Your task to perform on an android device: change notifications settings Image 0: 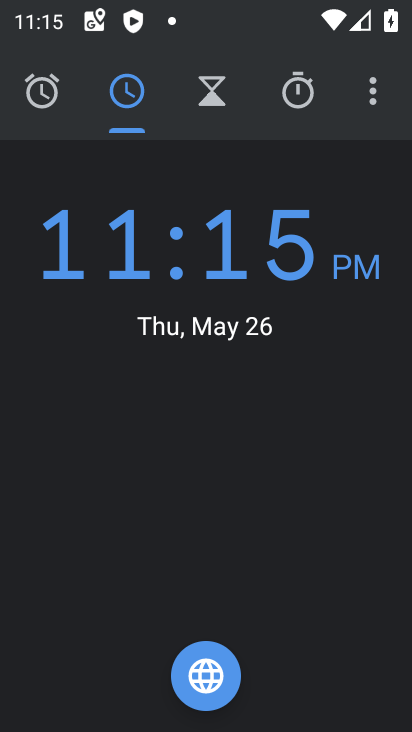
Step 0: press back button
Your task to perform on an android device: change notifications settings Image 1: 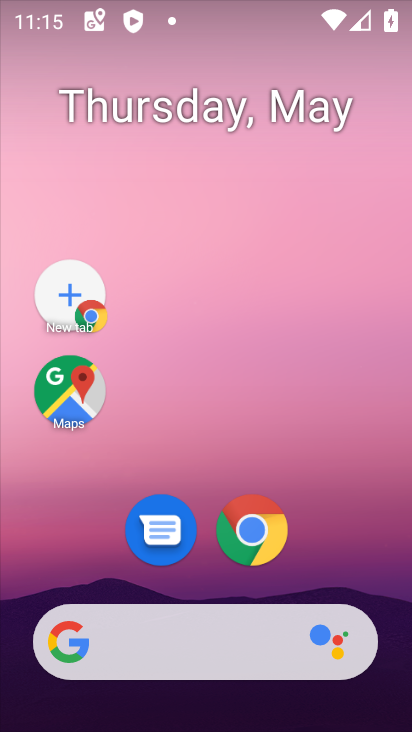
Step 1: drag from (334, 407) to (258, 107)
Your task to perform on an android device: change notifications settings Image 2: 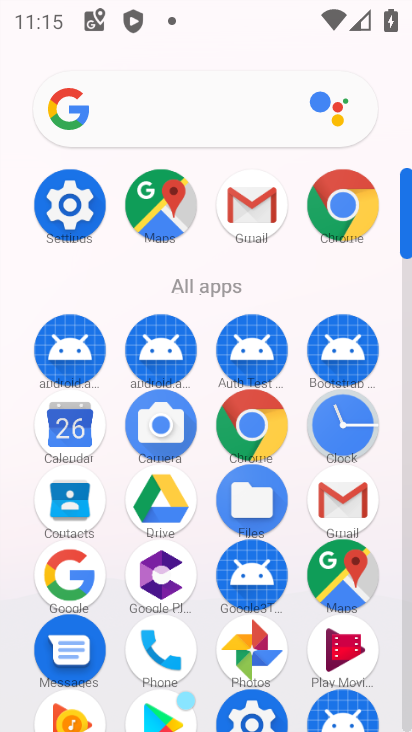
Step 2: click (61, 206)
Your task to perform on an android device: change notifications settings Image 3: 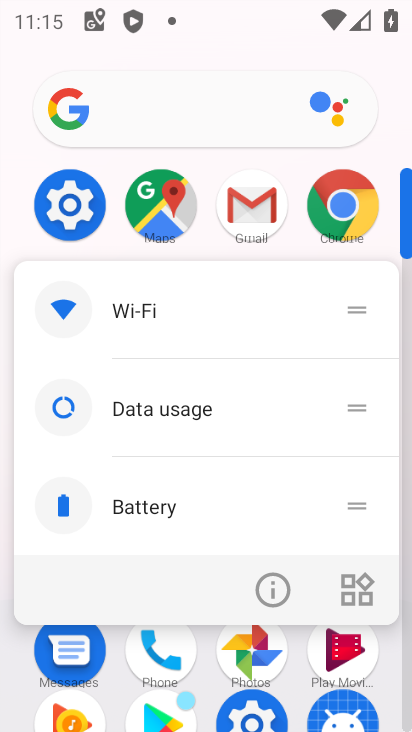
Step 3: click (75, 204)
Your task to perform on an android device: change notifications settings Image 4: 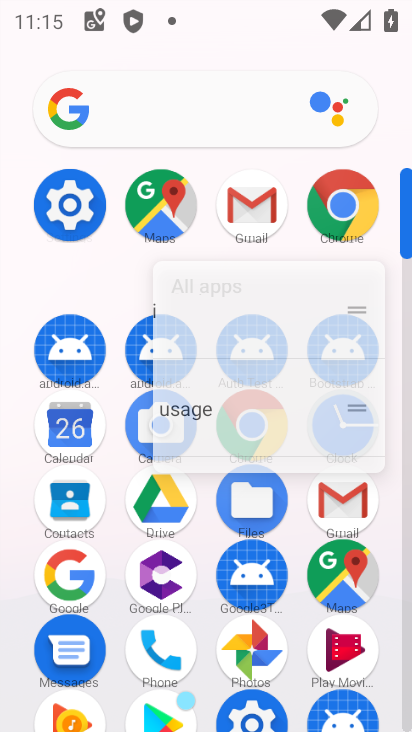
Step 4: click (75, 204)
Your task to perform on an android device: change notifications settings Image 5: 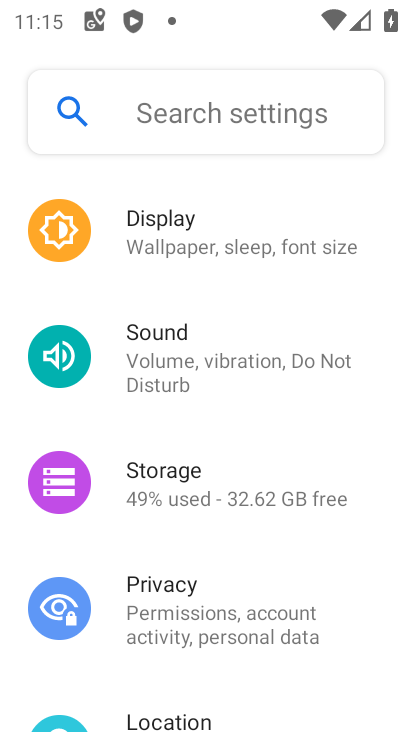
Step 5: drag from (186, 235) to (237, 582)
Your task to perform on an android device: change notifications settings Image 6: 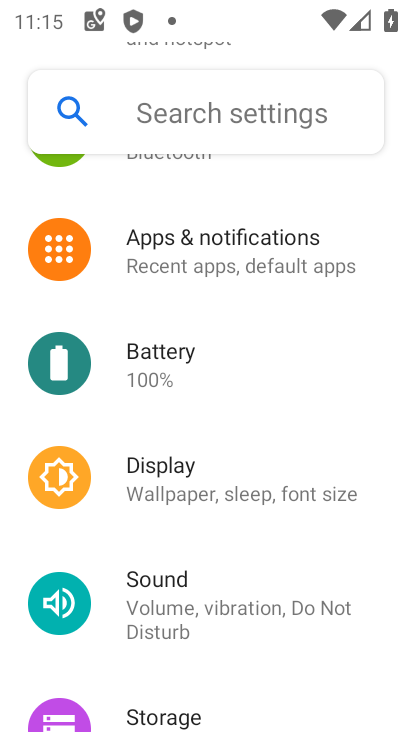
Step 6: drag from (233, 329) to (286, 696)
Your task to perform on an android device: change notifications settings Image 7: 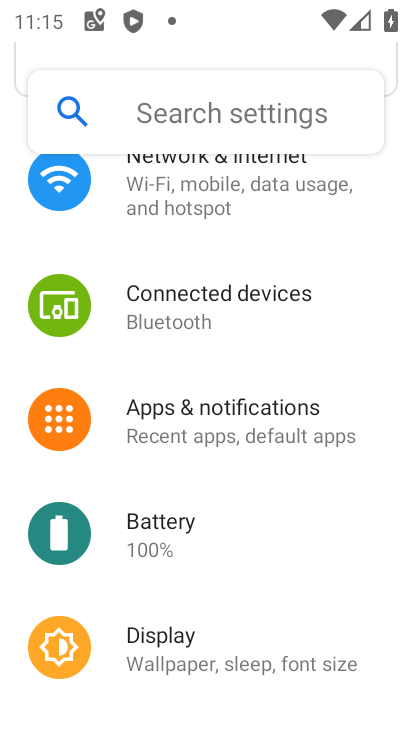
Step 7: drag from (215, 396) to (231, 660)
Your task to perform on an android device: change notifications settings Image 8: 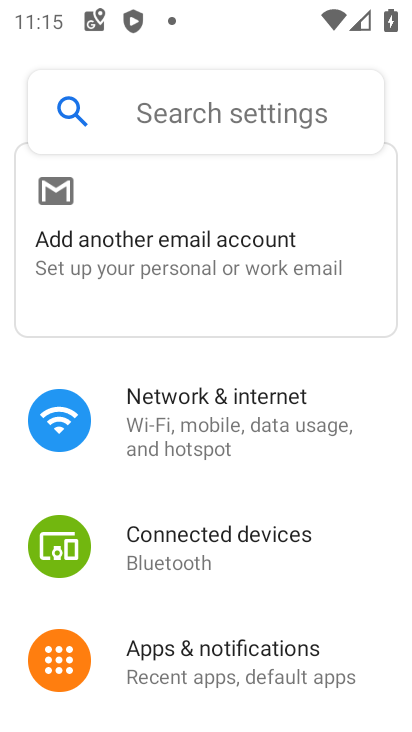
Step 8: drag from (177, 289) to (250, 703)
Your task to perform on an android device: change notifications settings Image 9: 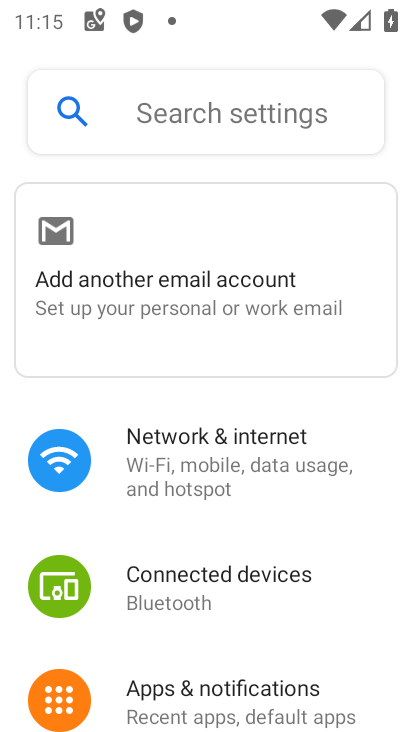
Step 9: drag from (247, 637) to (232, 241)
Your task to perform on an android device: change notifications settings Image 10: 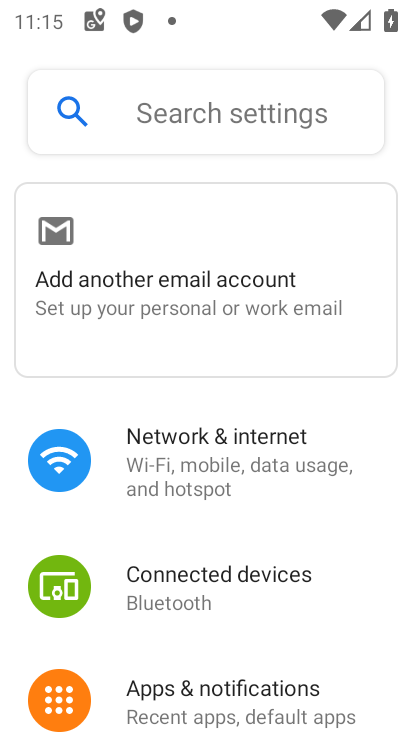
Step 10: click (261, 687)
Your task to perform on an android device: change notifications settings Image 11: 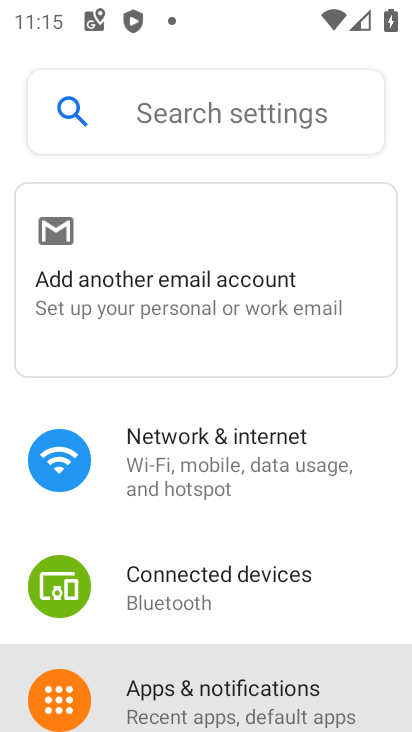
Step 11: click (226, 695)
Your task to perform on an android device: change notifications settings Image 12: 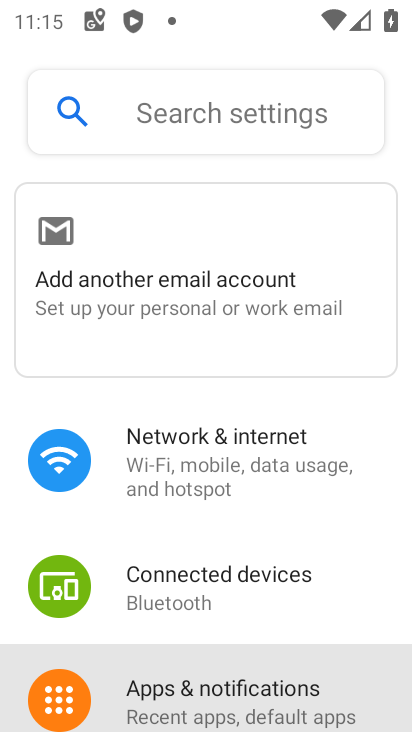
Step 12: click (226, 696)
Your task to perform on an android device: change notifications settings Image 13: 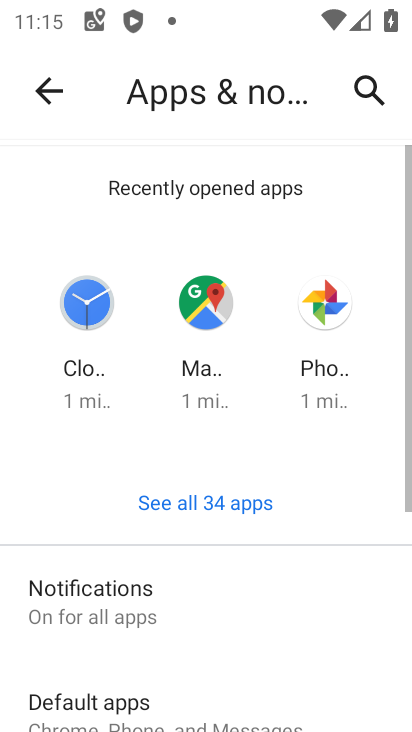
Step 13: click (228, 691)
Your task to perform on an android device: change notifications settings Image 14: 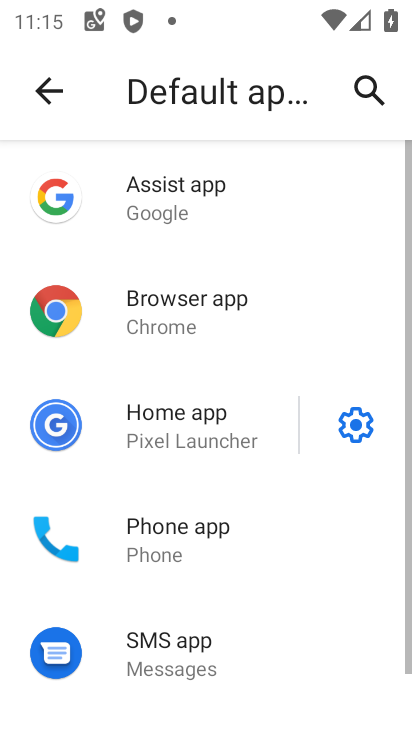
Step 14: click (138, 589)
Your task to perform on an android device: change notifications settings Image 15: 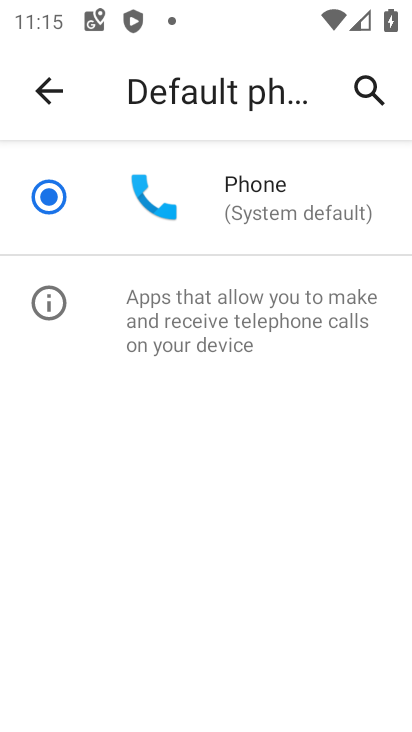
Step 15: task complete